Your task to perform on an android device: Open the calendar app, open the side menu, and click the "Day" option Image 0: 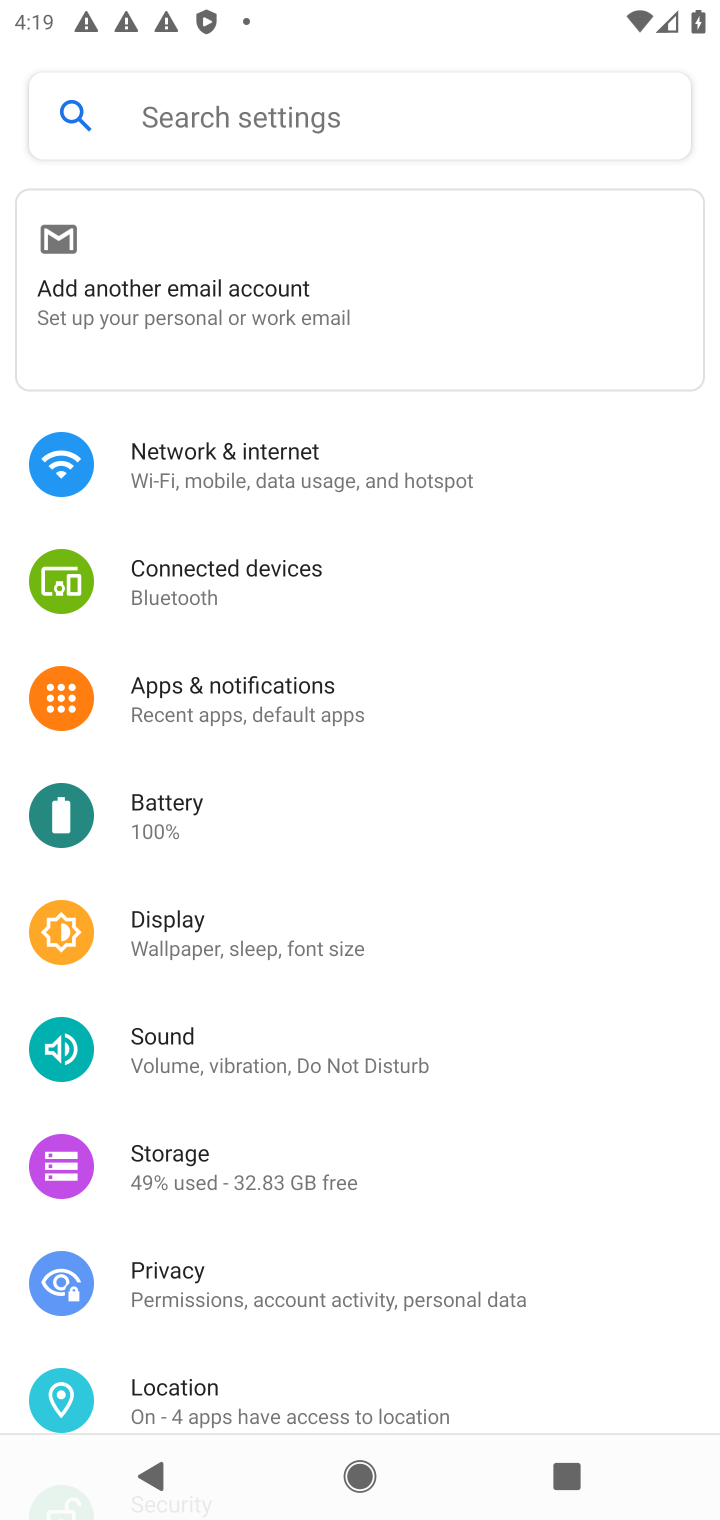
Step 0: press home button
Your task to perform on an android device: Open the calendar app, open the side menu, and click the "Day" option Image 1: 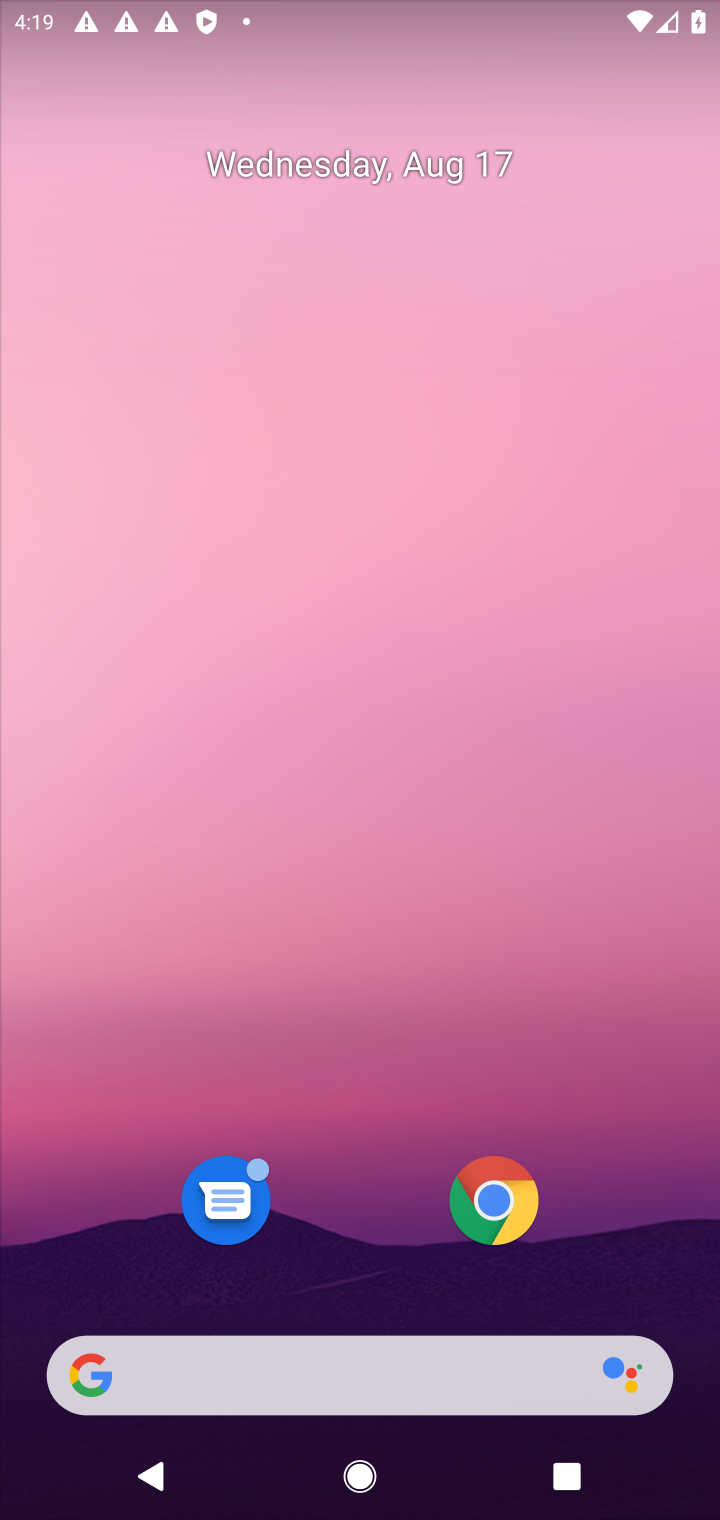
Step 1: drag from (399, 988) to (387, 176)
Your task to perform on an android device: Open the calendar app, open the side menu, and click the "Day" option Image 2: 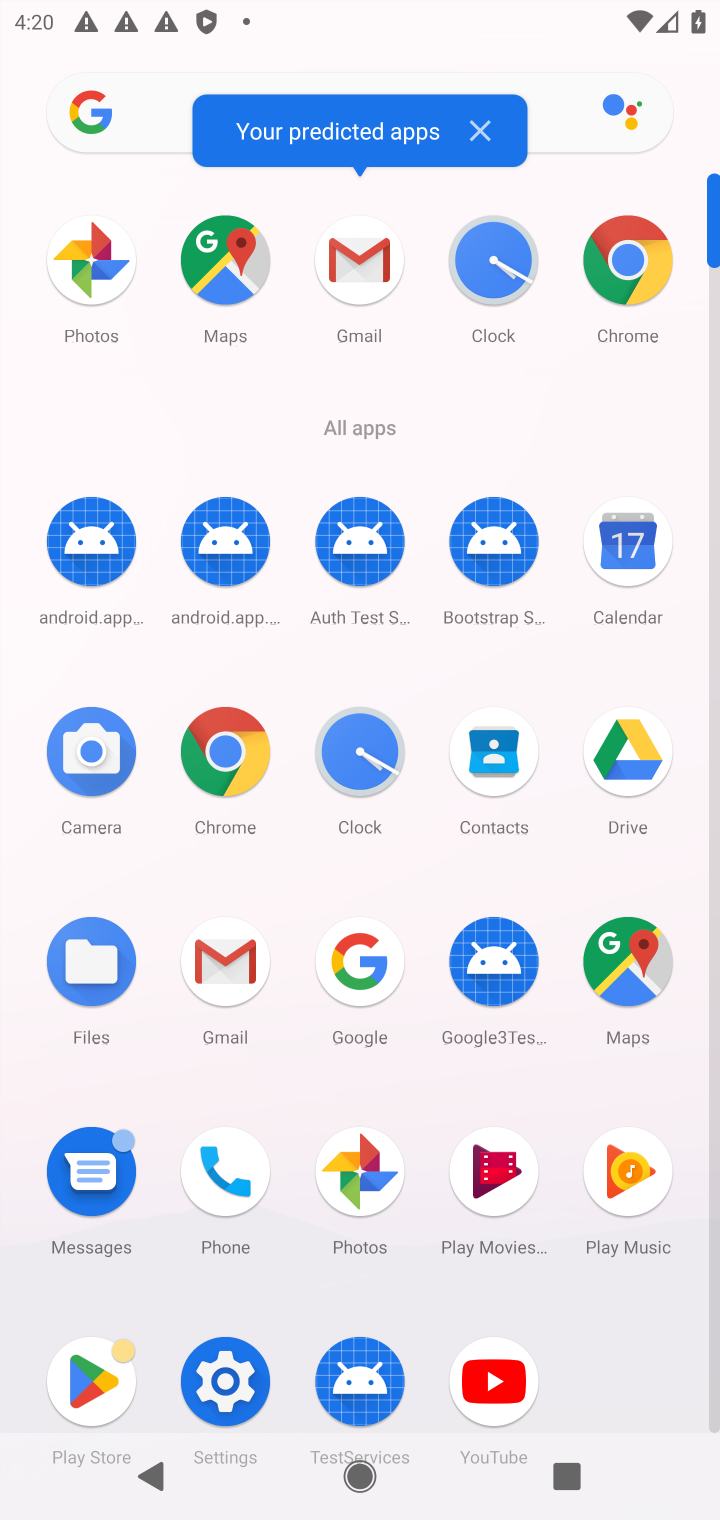
Step 2: click (622, 555)
Your task to perform on an android device: Open the calendar app, open the side menu, and click the "Day" option Image 3: 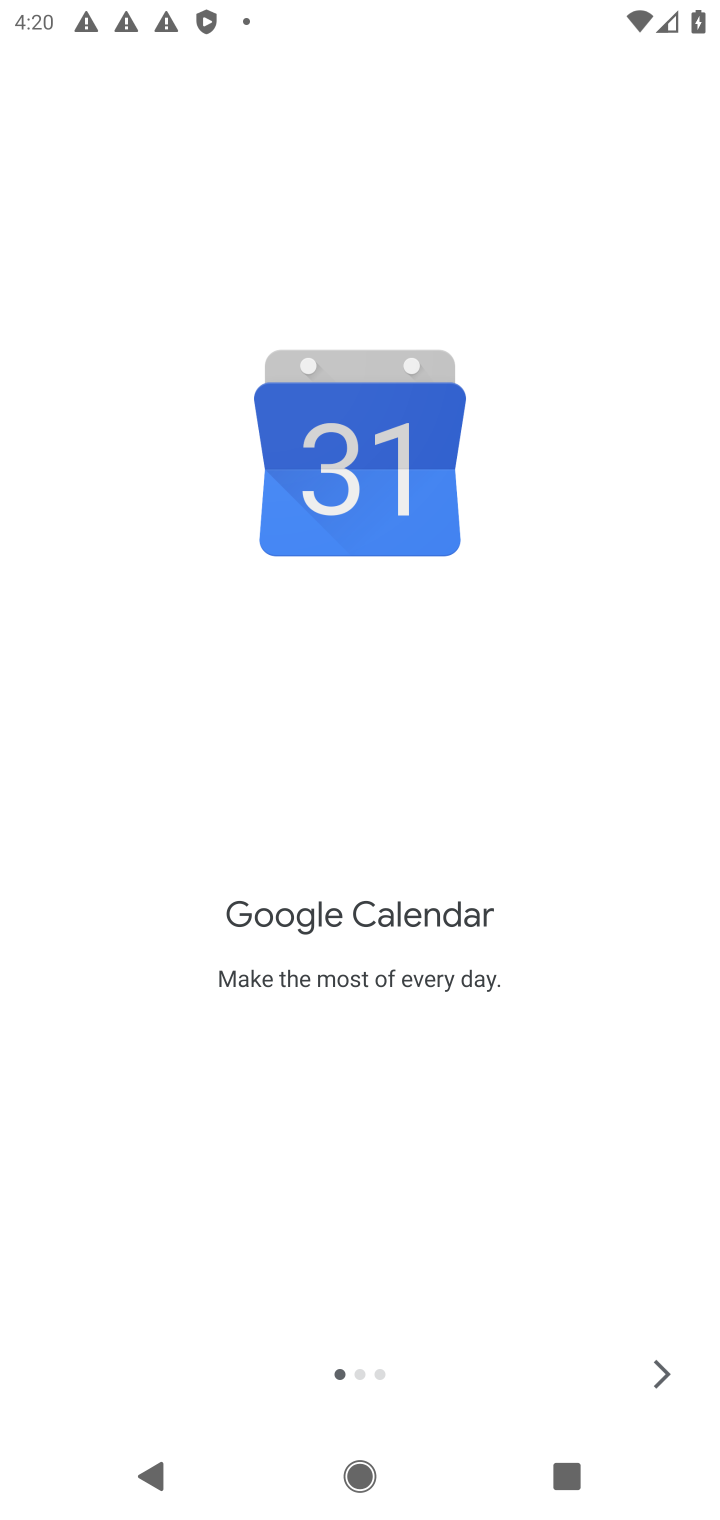
Step 3: click (666, 1365)
Your task to perform on an android device: Open the calendar app, open the side menu, and click the "Day" option Image 4: 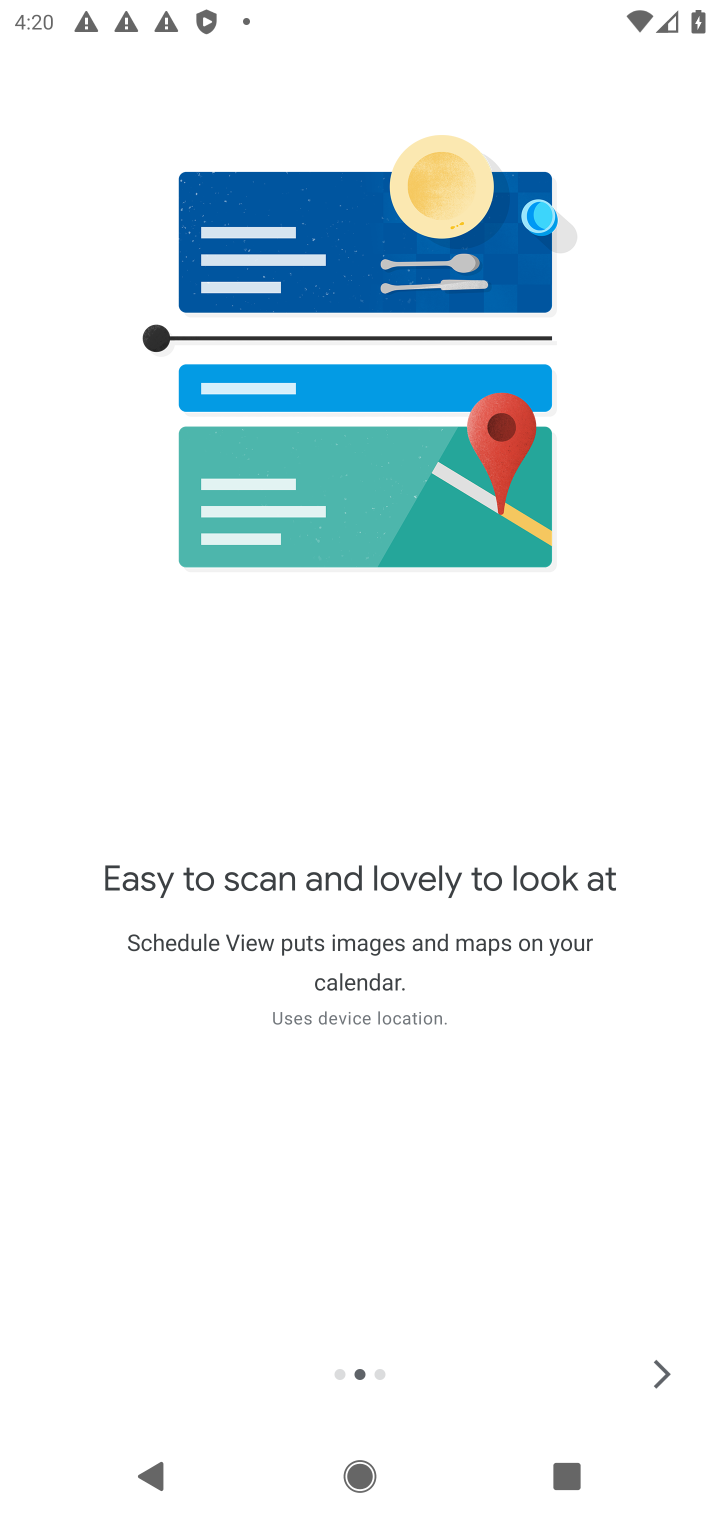
Step 4: click (666, 1365)
Your task to perform on an android device: Open the calendar app, open the side menu, and click the "Day" option Image 5: 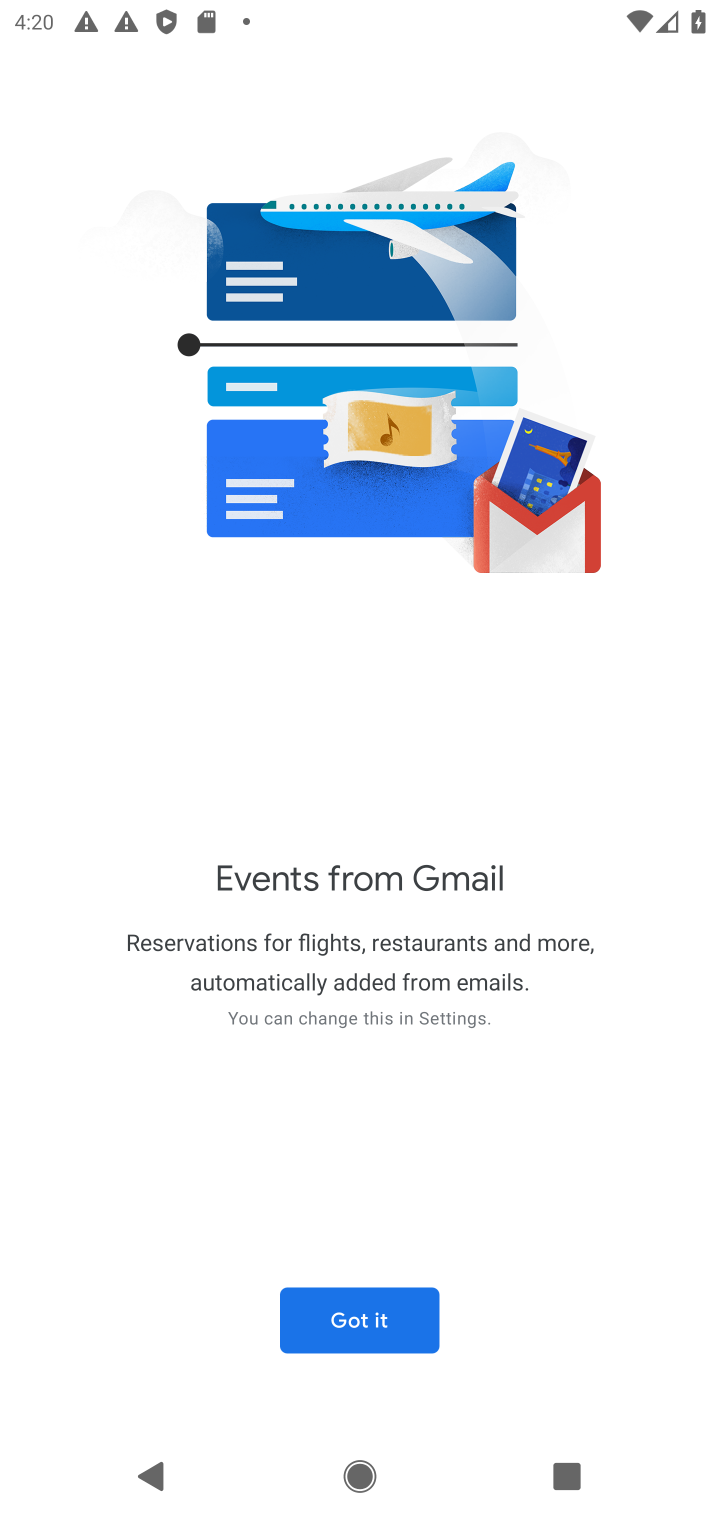
Step 5: click (367, 1319)
Your task to perform on an android device: Open the calendar app, open the side menu, and click the "Day" option Image 6: 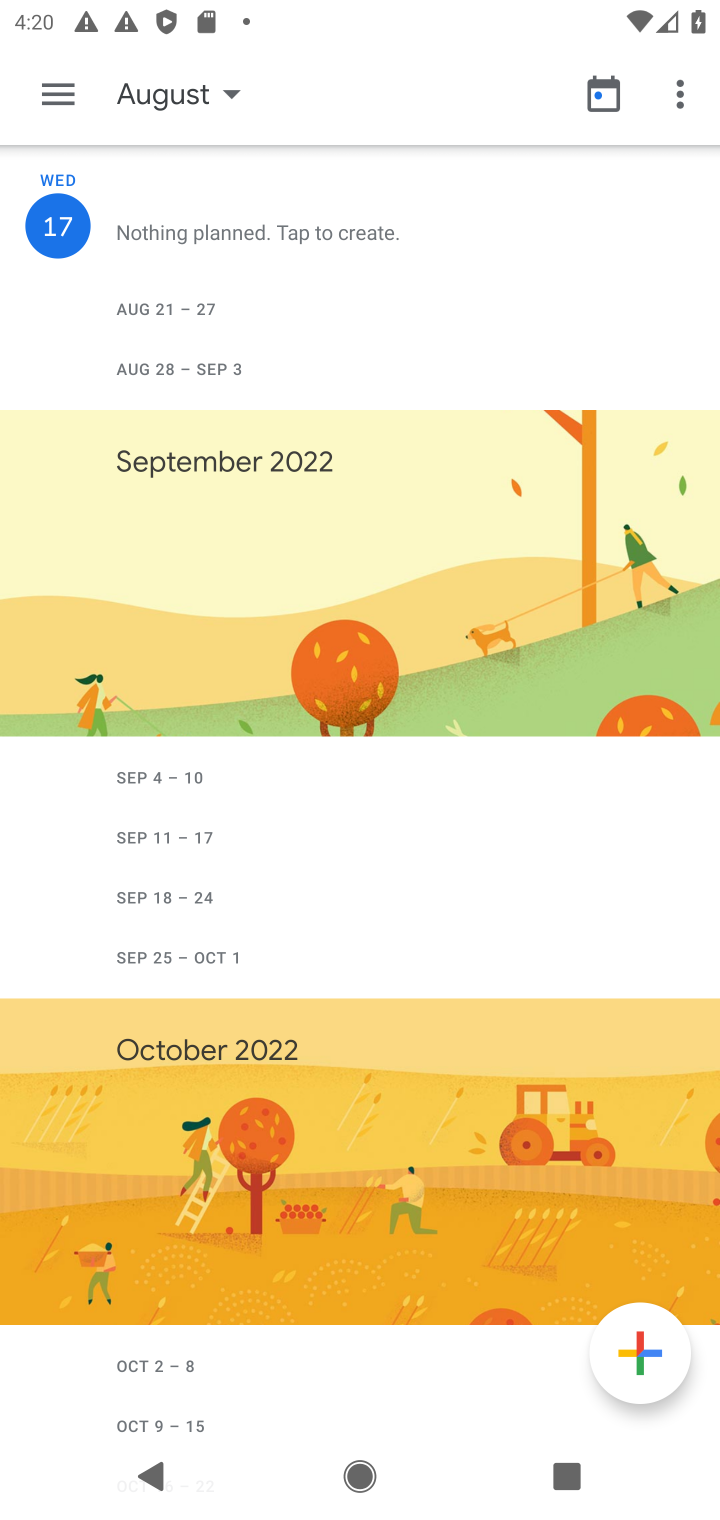
Step 6: click (65, 90)
Your task to perform on an android device: Open the calendar app, open the side menu, and click the "Day" option Image 7: 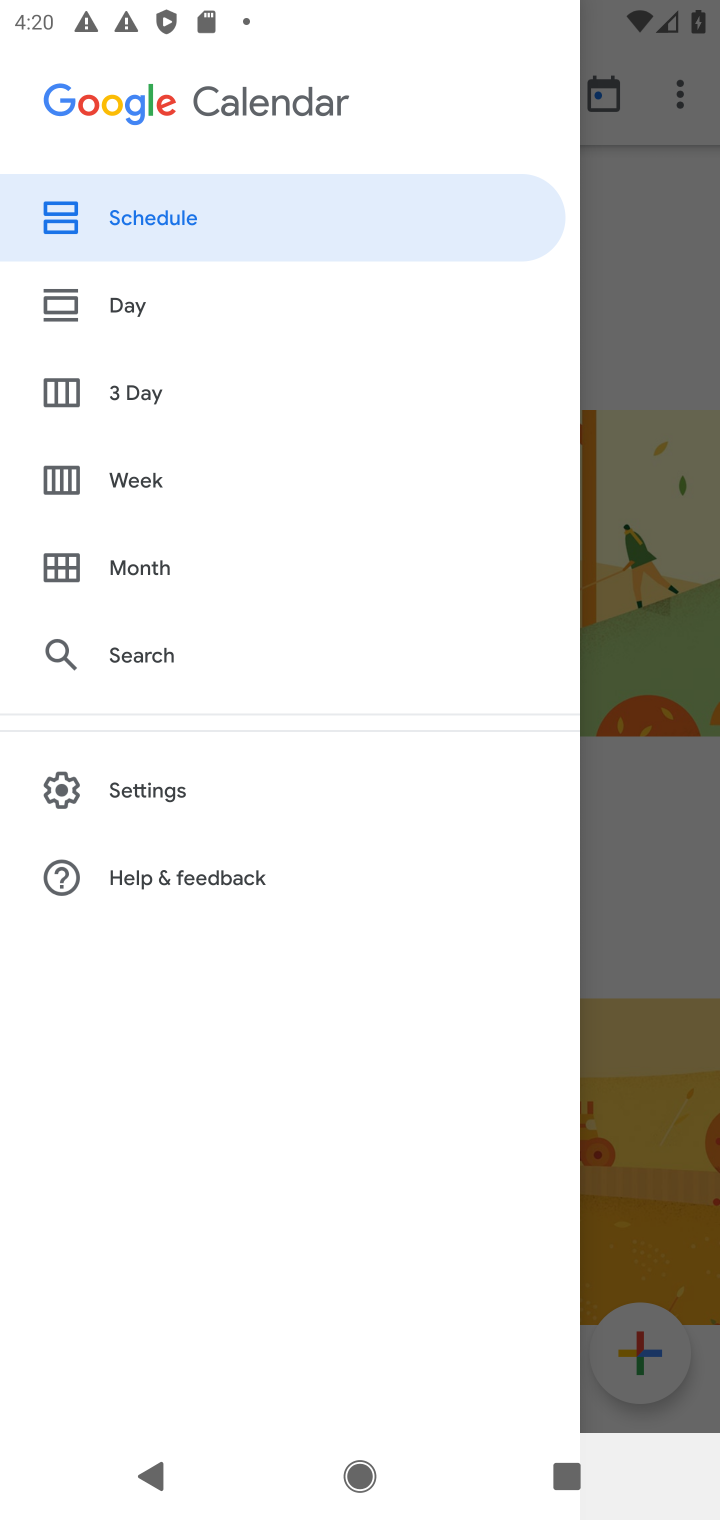
Step 7: click (117, 308)
Your task to perform on an android device: Open the calendar app, open the side menu, and click the "Day" option Image 8: 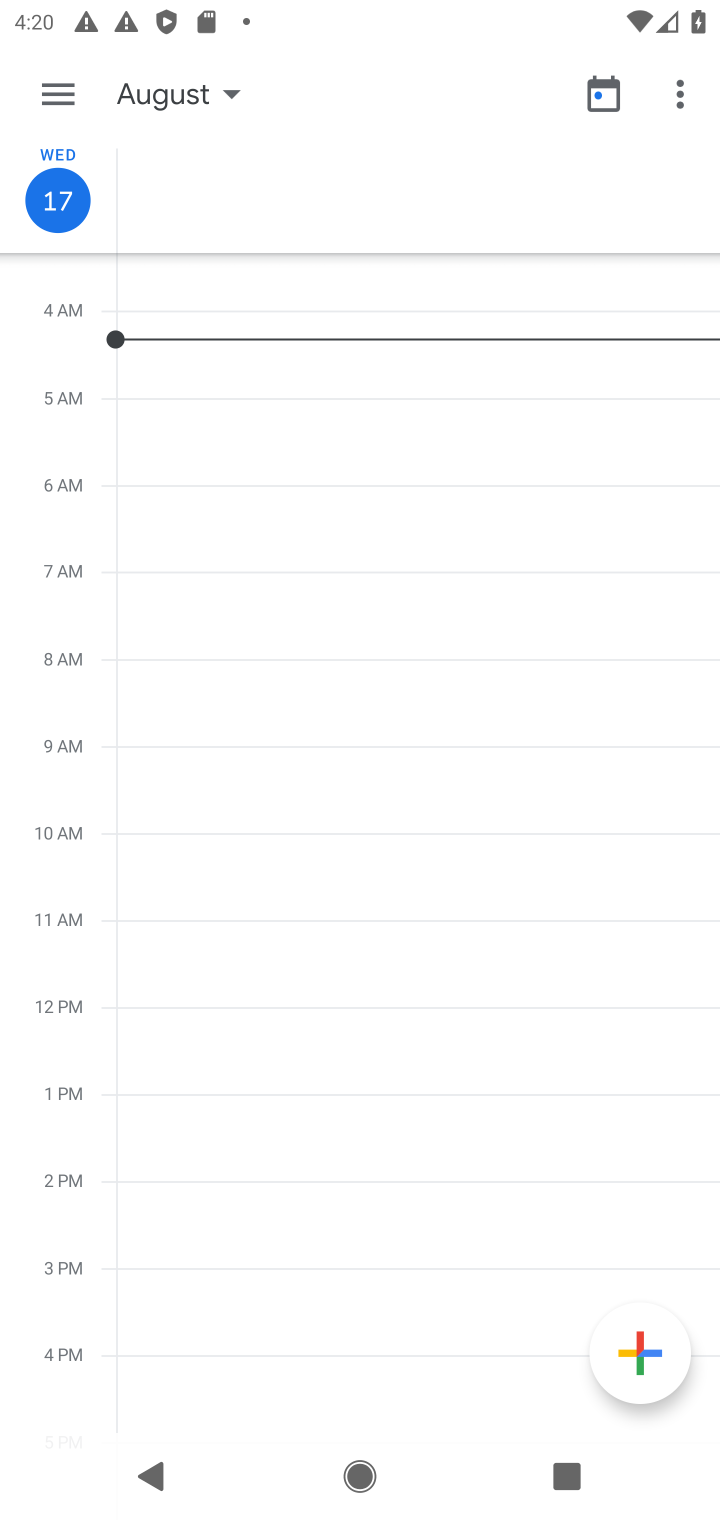
Step 8: task complete